Your task to perform on an android device: uninstall "Cash App" Image 0: 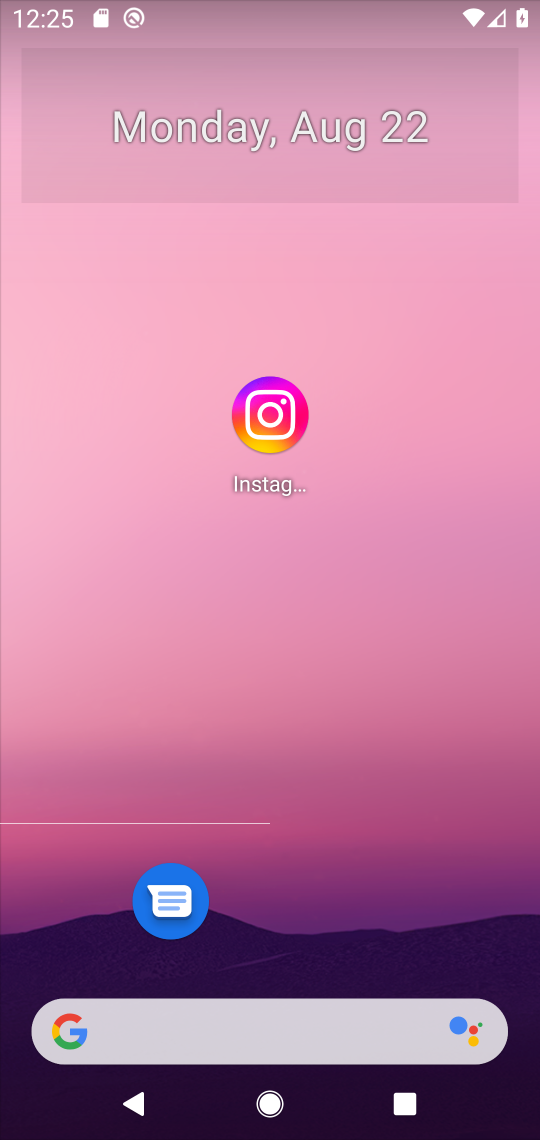
Step 0: drag from (424, 942) to (350, 2)
Your task to perform on an android device: uninstall "Cash App" Image 1: 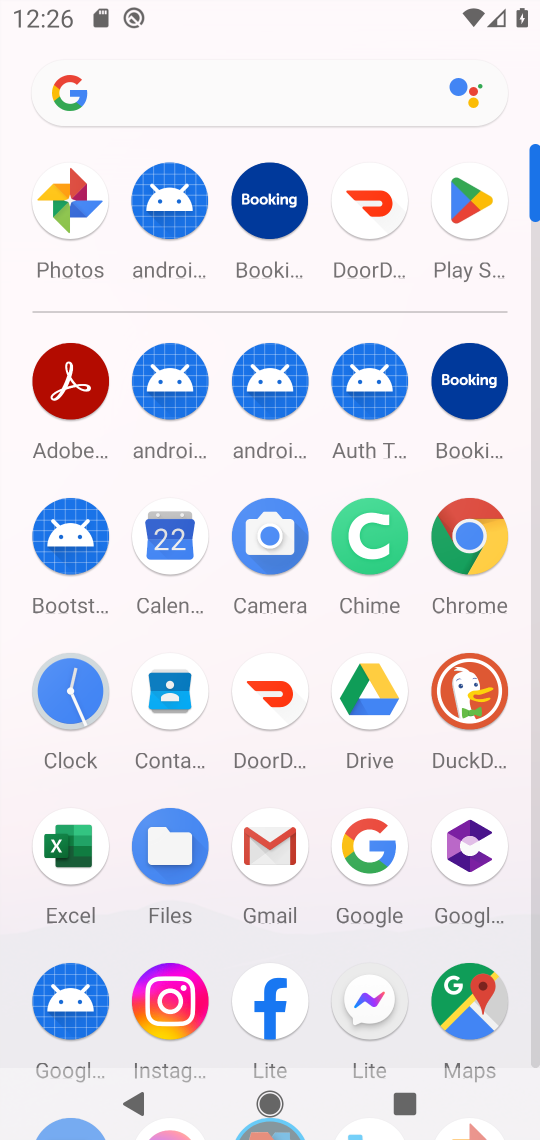
Step 1: click (474, 231)
Your task to perform on an android device: uninstall "Cash App" Image 2: 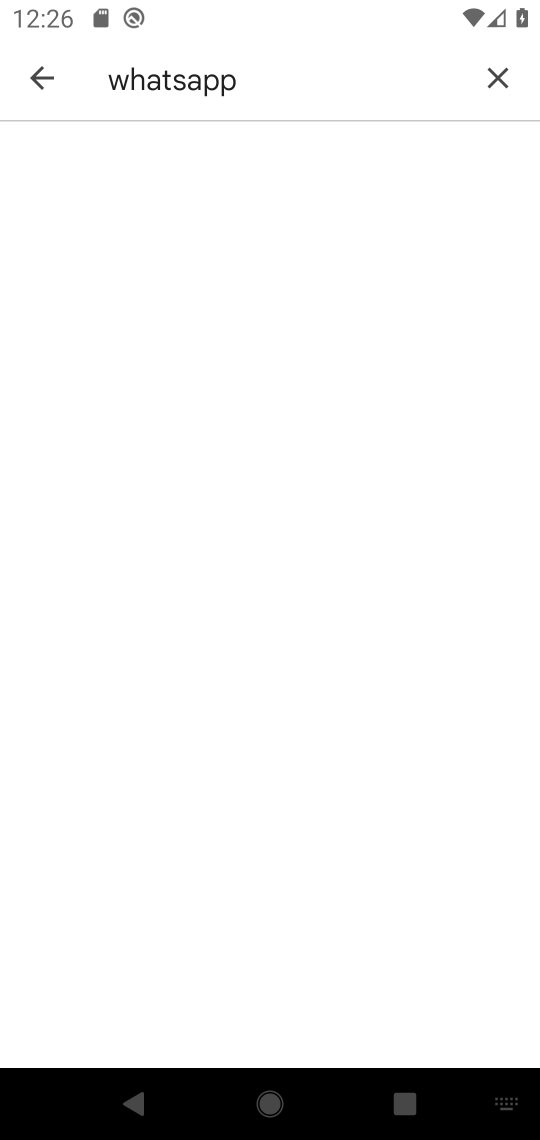
Step 2: click (473, 84)
Your task to perform on an android device: uninstall "Cash App" Image 3: 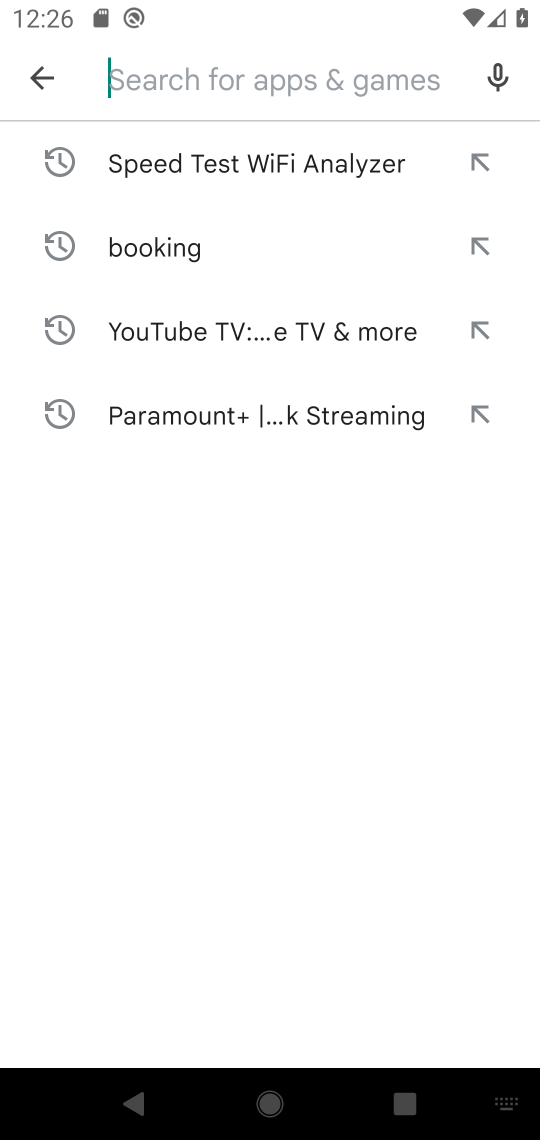
Step 3: type "cash"
Your task to perform on an android device: uninstall "Cash App" Image 4: 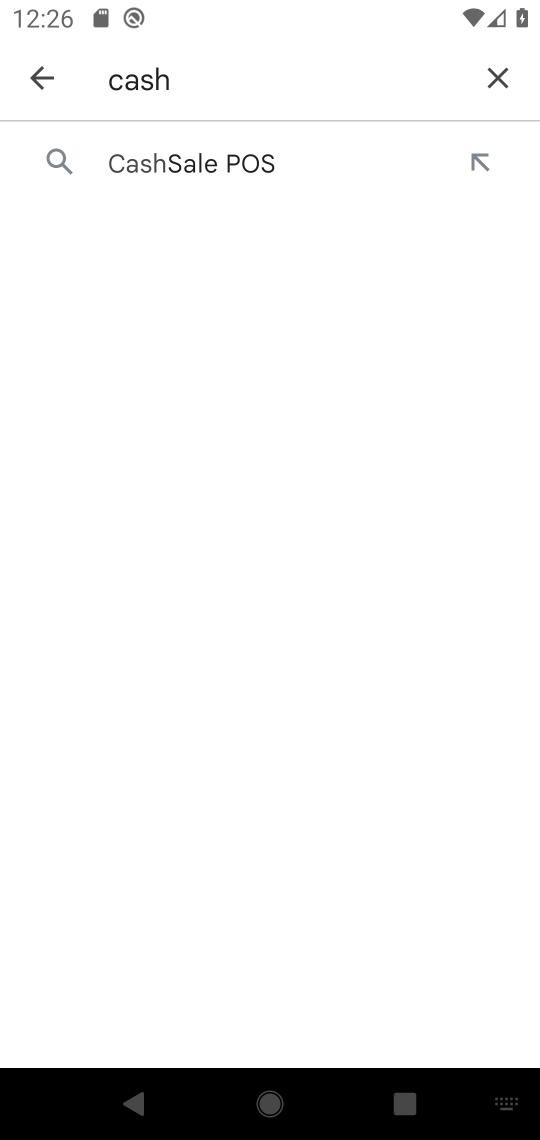
Step 4: click (200, 181)
Your task to perform on an android device: uninstall "Cash App" Image 5: 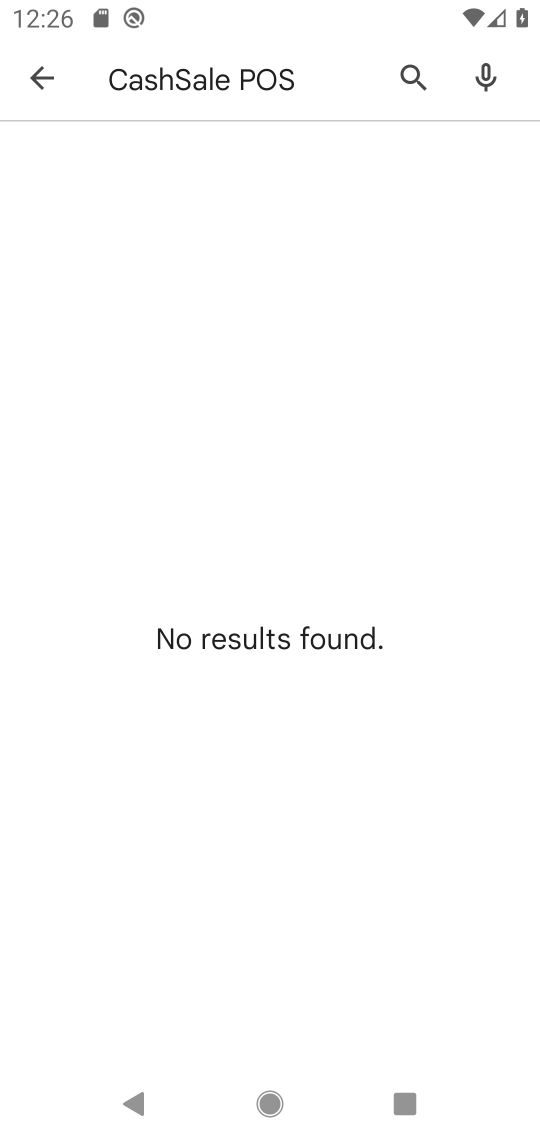
Step 5: click (430, 88)
Your task to perform on an android device: uninstall "Cash App" Image 6: 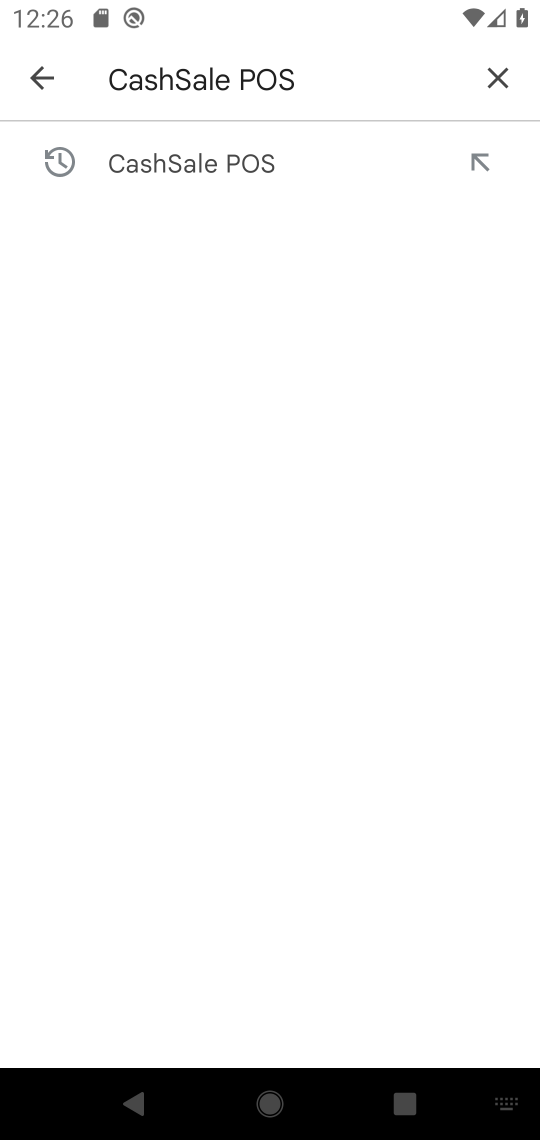
Step 6: type "cash app"
Your task to perform on an android device: uninstall "Cash App" Image 7: 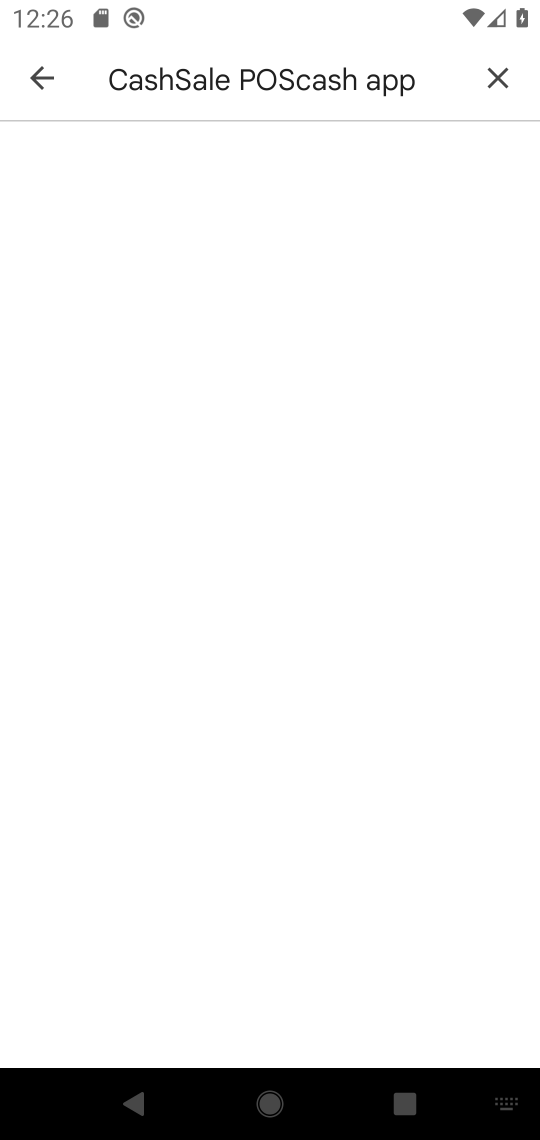
Step 7: click (480, 86)
Your task to perform on an android device: uninstall "Cash App" Image 8: 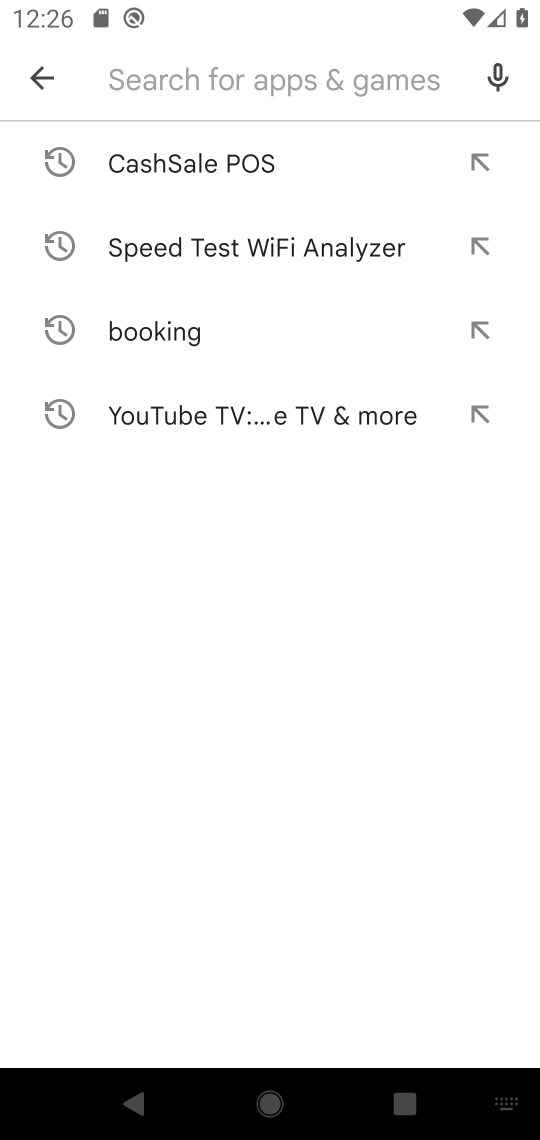
Step 8: type "cash app"
Your task to perform on an android device: uninstall "Cash App" Image 9: 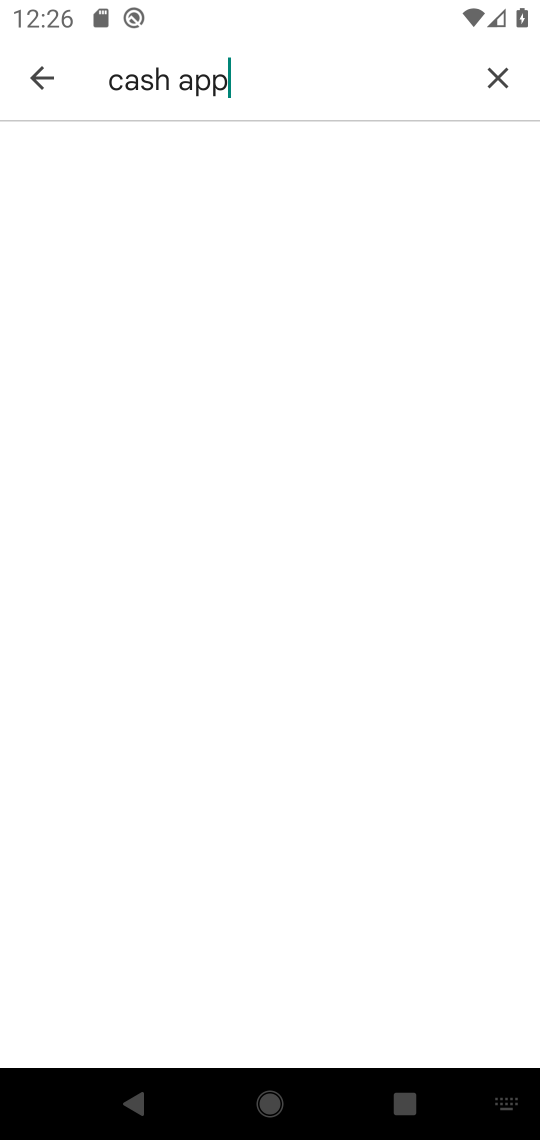
Step 9: task complete